Your task to perform on an android device: Is it going to rain this weekend? Image 0: 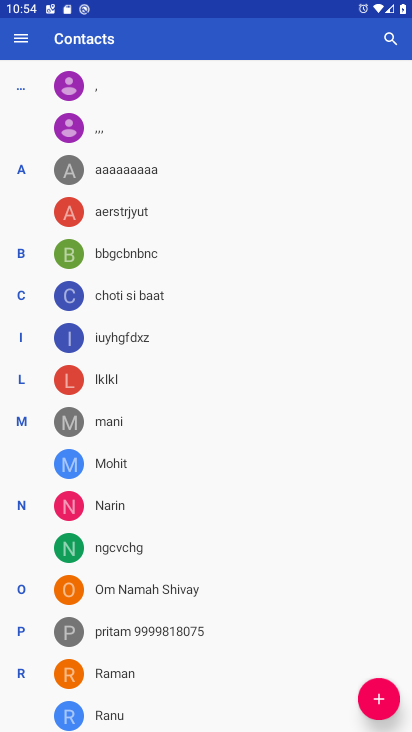
Step 0: press home button
Your task to perform on an android device: Is it going to rain this weekend? Image 1: 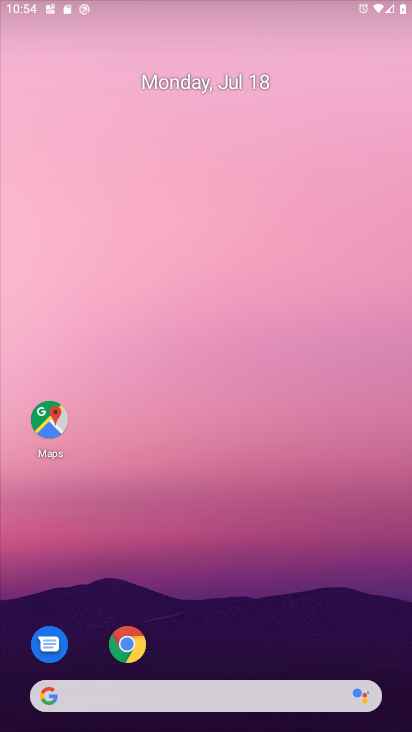
Step 1: drag from (248, 386) to (323, 83)
Your task to perform on an android device: Is it going to rain this weekend? Image 2: 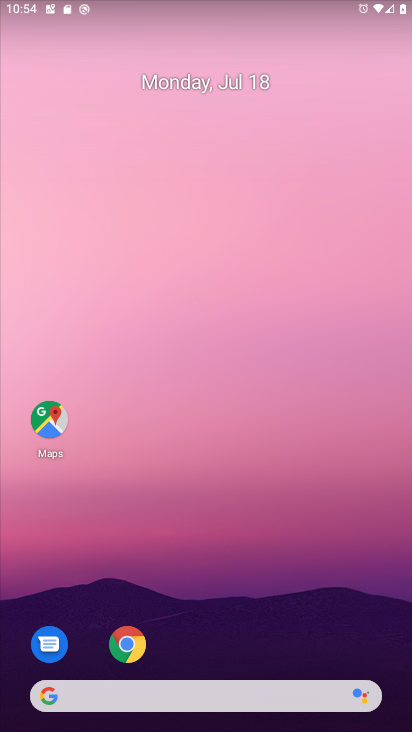
Step 2: drag from (248, 669) to (259, 169)
Your task to perform on an android device: Is it going to rain this weekend? Image 3: 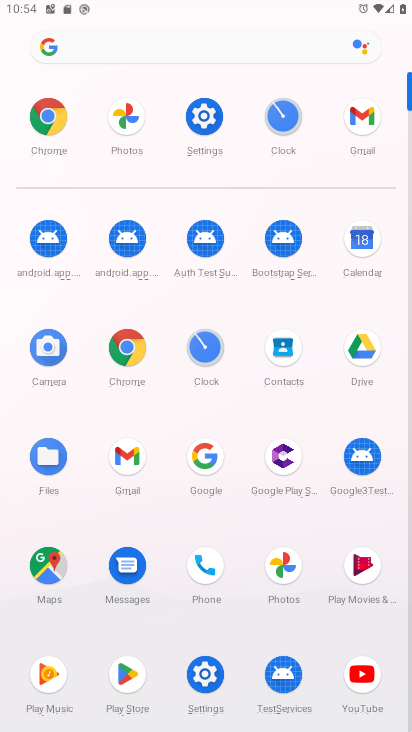
Step 3: click (204, 141)
Your task to perform on an android device: Is it going to rain this weekend? Image 4: 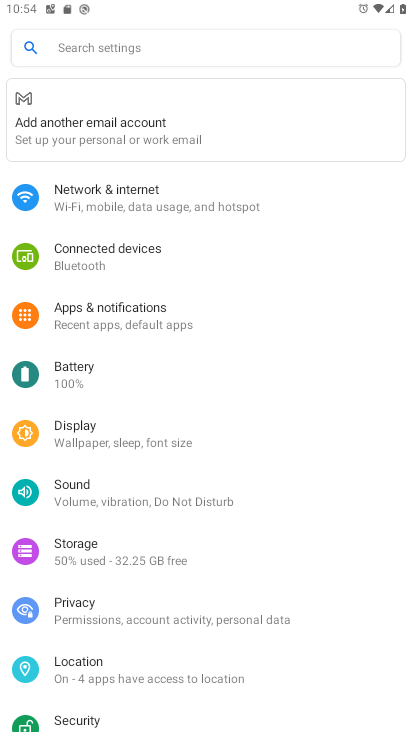
Step 4: task complete